Your task to perform on an android device: turn off picture-in-picture Image 0: 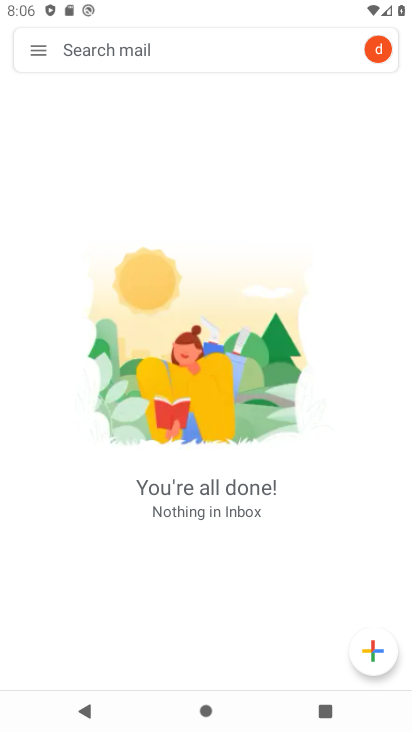
Step 0: press home button
Your task to perform on an android device: turn off picture-in-picture Image 1: 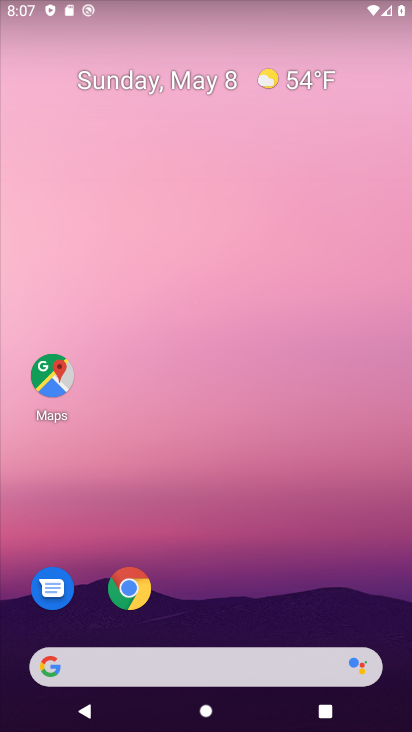
Step 1: drag from (51, 559) to (293, 229)
Your task to perform on an android device: turn off picture-in-picture Image 2: 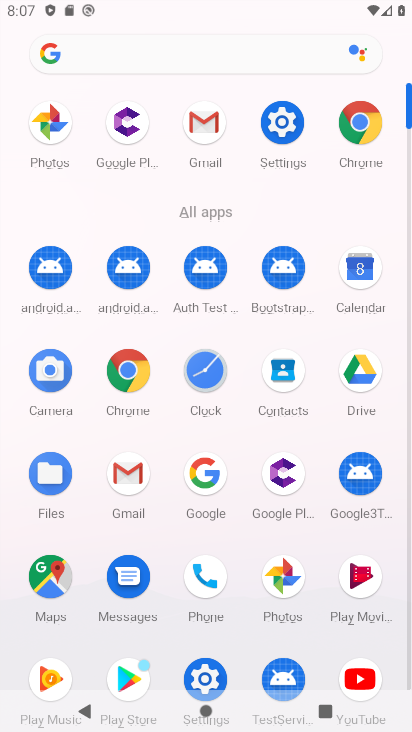
Step 2: click (274, 137)
Your task to perform on an android device: turn off picture-in-picture Image 3: 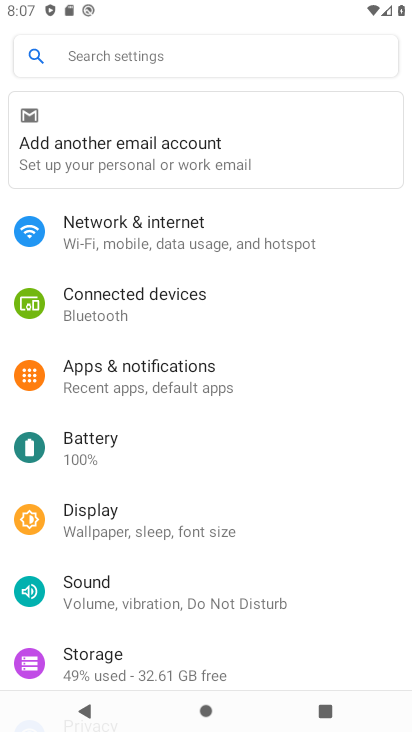
Step 3: drag from (155, 616) to (254, 291)
Your task to perform on an android device: turn off picture-in-picture Image 4: 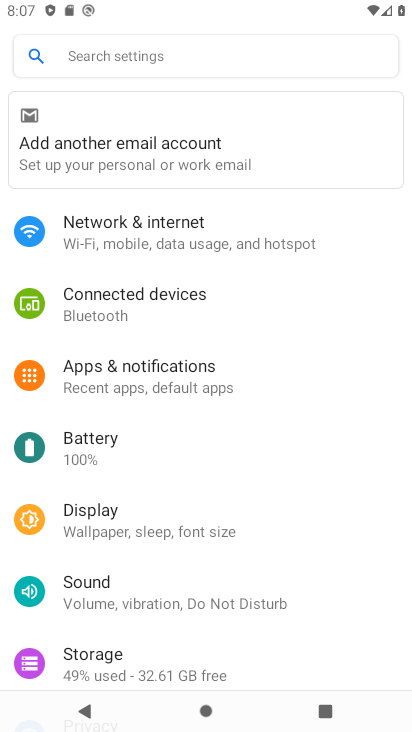
Step 4: click (152, 380)
Your task to perform on an android device: turn off picture-in-picture Image 5: 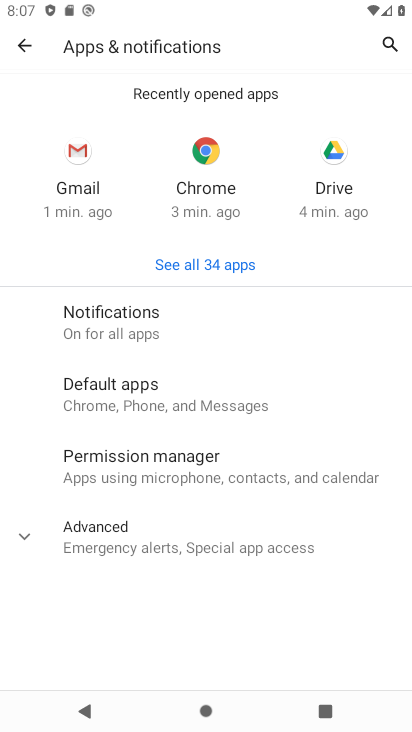
Step 5: click (172, 528)
Your task to perform on an android device: turn off picture-in-picture Image 6: 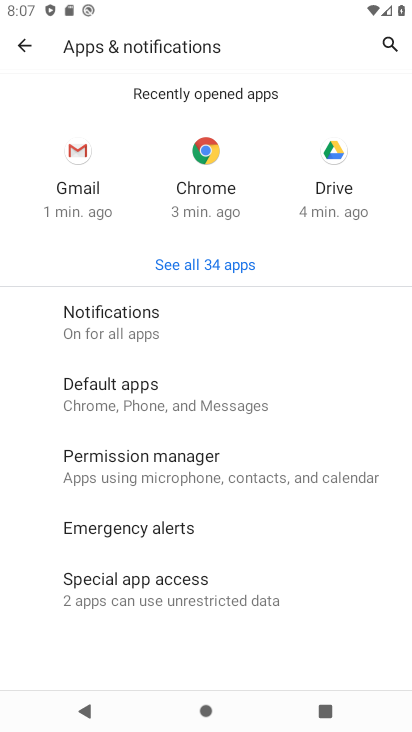
Step 6: click (153, 603)
Your task to perform on an android device: turn off picture-in-picture Image 7: 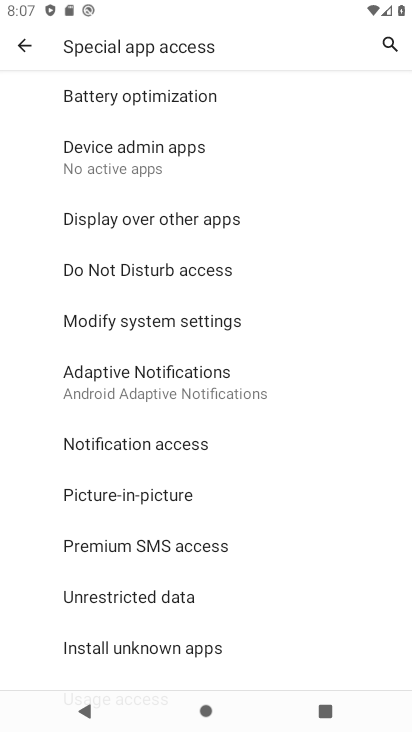
Step 7: click (177, 506)
Your task to perform on an android device: turn off picture-in-picture Image 8: 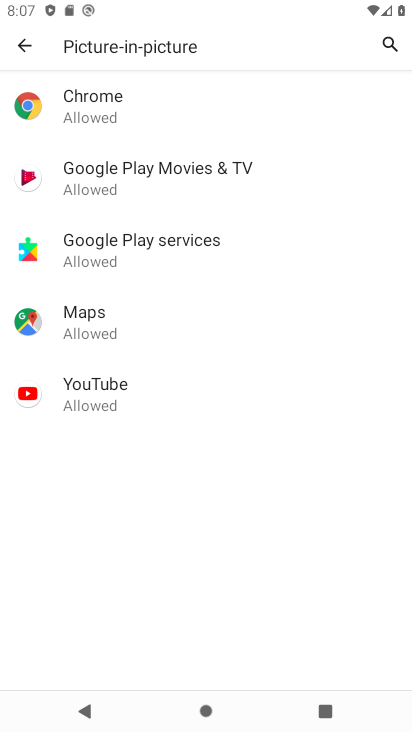
Step 8: click (151, 100)
Your task to perform on an android device: turn off picture-in-picture Image 9: 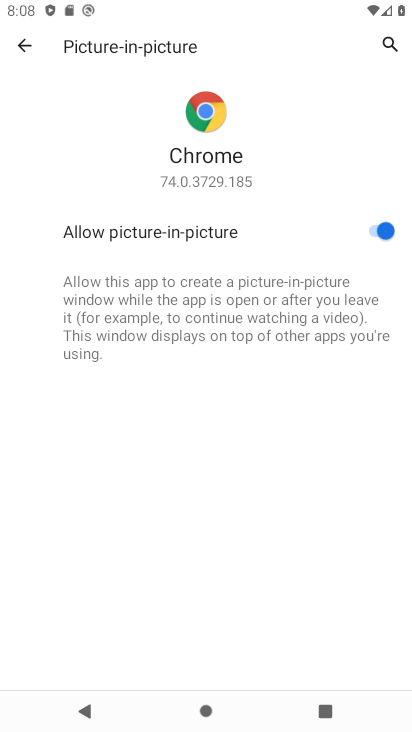
Step 9: click (376, 231)
Your task to perform on an android device: turn off picture-in-picture Image 10: 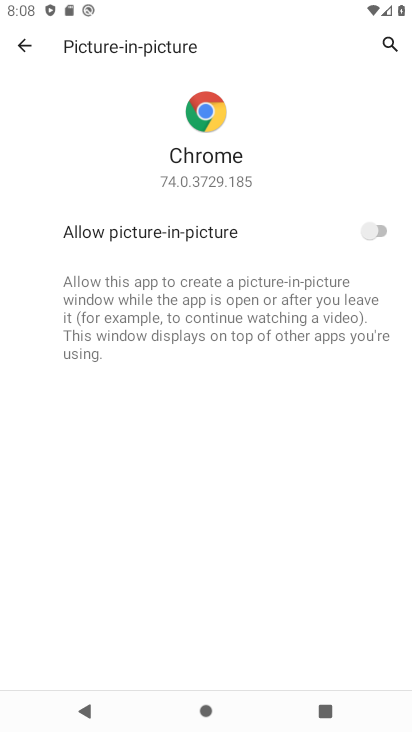
Step 10: task complete